Your task to perform on an android device: turn on sleep mode Image 0: 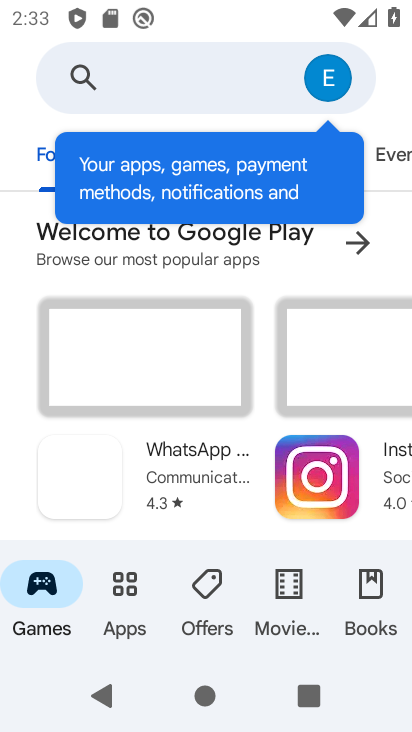
Step 0: press home button
Your task to perform on an android device: turn on sleep mode Image 1: 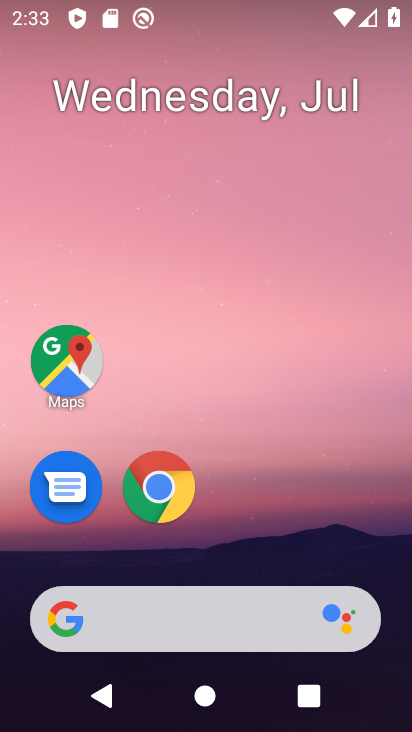
Step 1: drag from (336, 550) to (223, 95)
Your task to perform on an android device: turn on sleep mode Image 2: 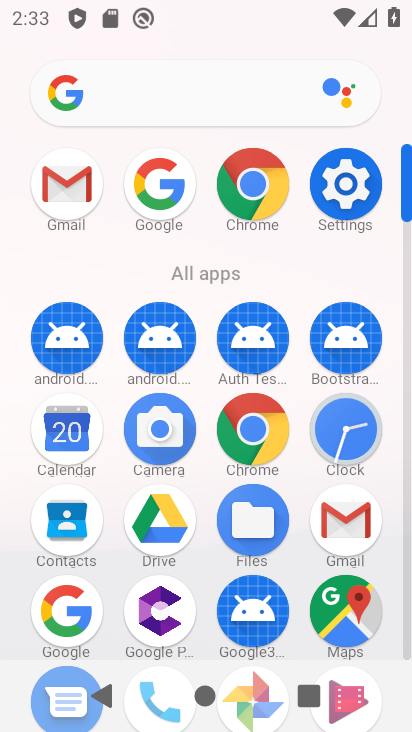
Step 2: click (355, 207)
Your task to perform on an android device: turn on sleep mode Image 3: 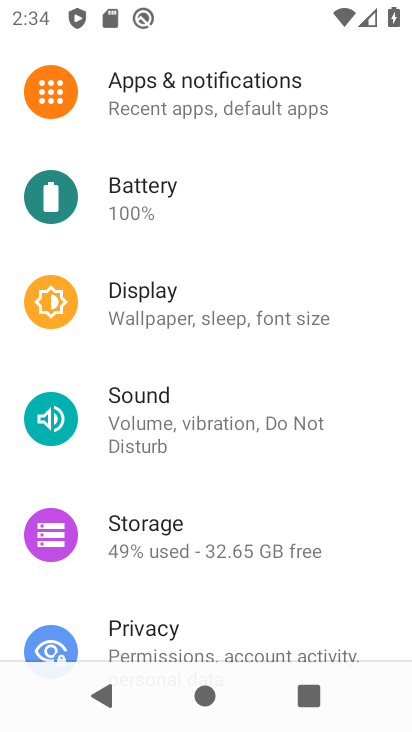
Step 3: click (315, 307)
Your task to perform on an android device: turn on sleep mode Image 4: 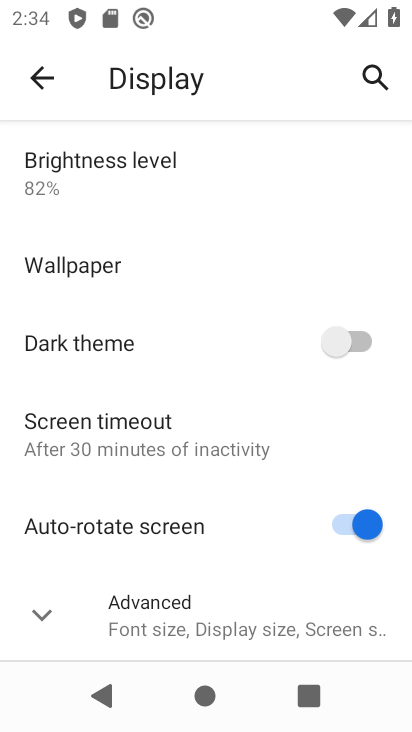
Step 4: click (225, 609)
Your task to perform on an android device: turn on sleep mode Image 5: 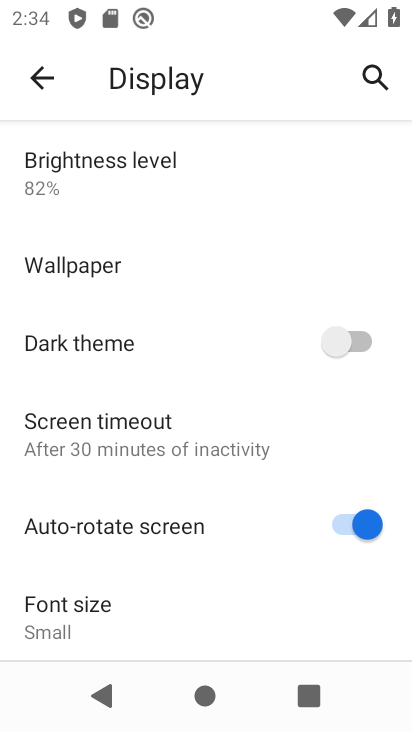
Step 5: task complete